Your task to perform on an android device: change alarm snooze length Image 0: 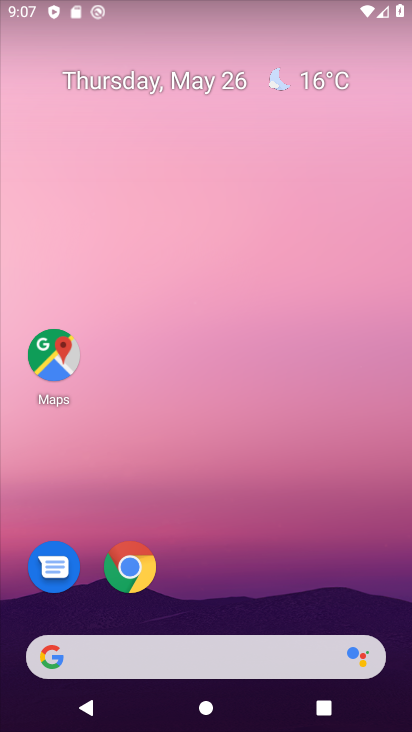
Step 0: drag from (396, 699) to (315, 16)
Your task to perform on an android device: change alarm snooze length Image 1: 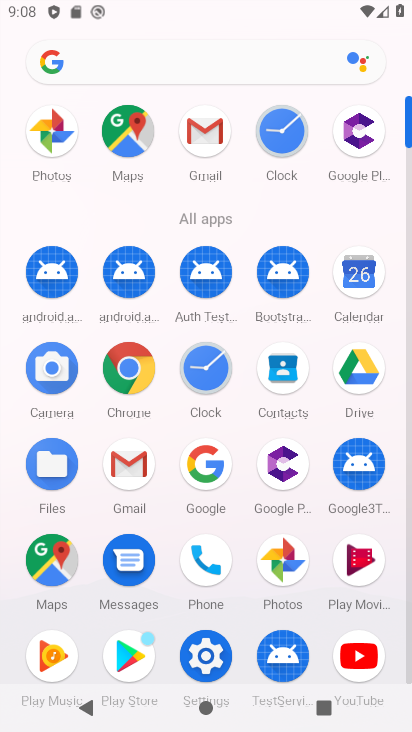
Step 1: click (196, 376)
Your task to perform on an android device: change alarm snooze length Image 2: 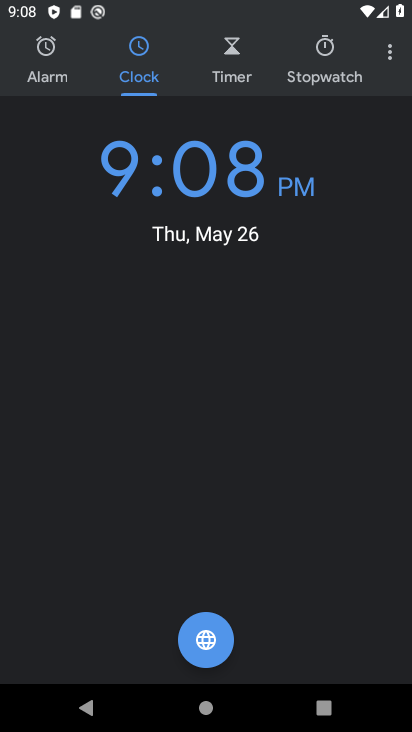
Step 2: click (394, 57)
Your task to perform on an android device: change alarm snooze length Image 3: 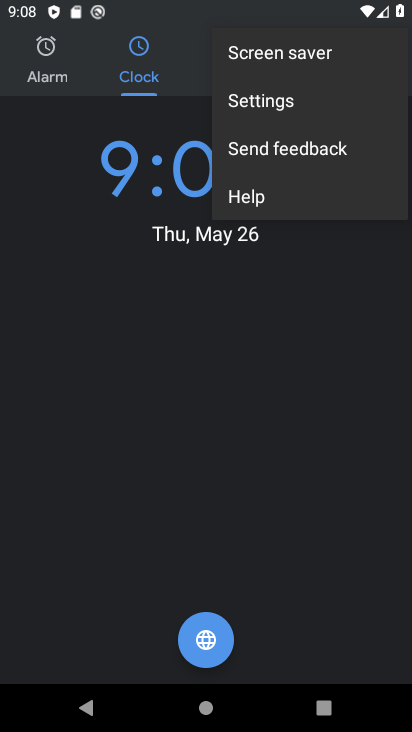
Step 3: click (254, 103)
Your task to perform on an android device: change alarm snooze length Image 4: 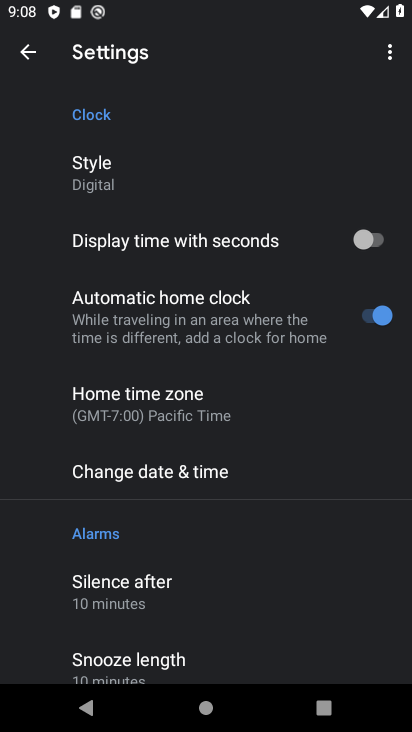
Step 4: drag from (277, 604) to (279, 328)
Your task to perform on an android device: change alarm snooze length Image 5: 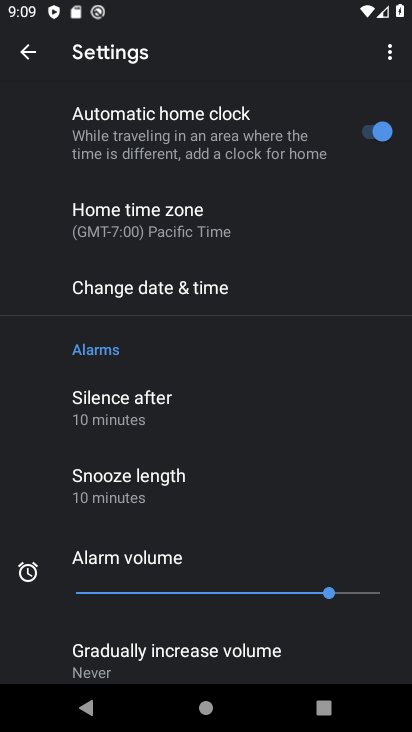
Step 5: click (123, 472)
Your task to perform on an android device: change alarm snooze length Image 6: 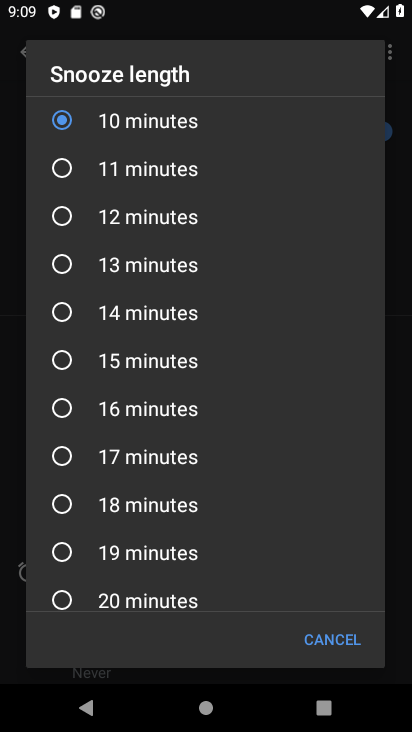
Step 6: click (59, 265)
Your task to perform on an android device: change alarm snooze length Image 7: 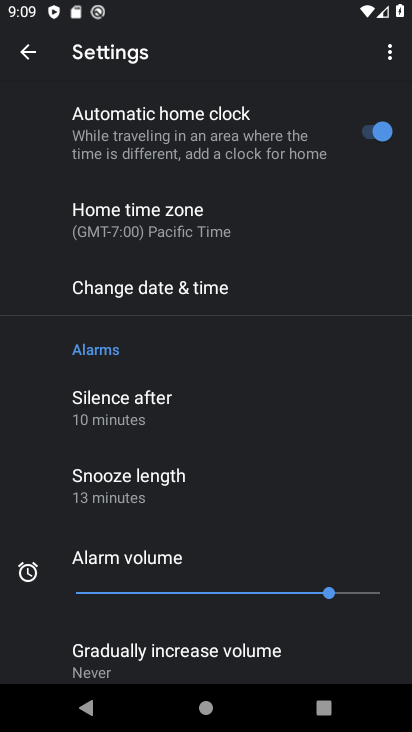
Step 7: task complete